Your task to perform on an android device: Go to calendar. Show me events next week Image 0: 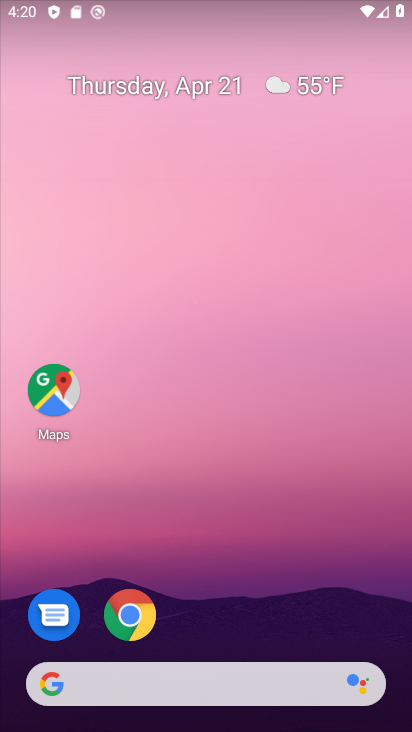
Step 0: drag from (250, 561) to (190, 27)
Your task to perform on an android device: Go to calendar. Show me events next week Image 1: 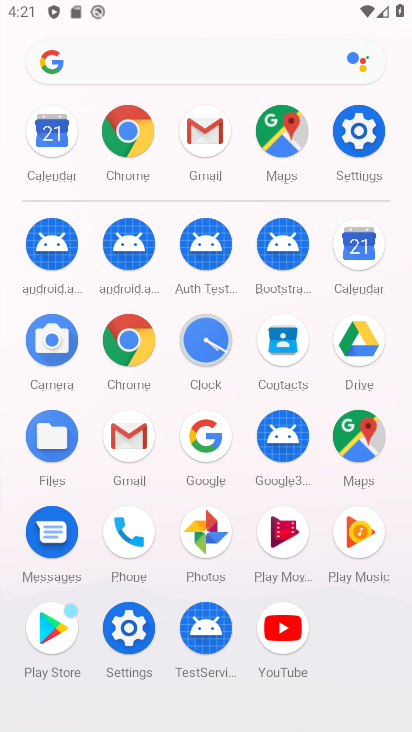
Step 1: drag from (12, 402) to (15, 198)
Your task to perform on an android device: Go to calendar. Show me events next week Image 2: 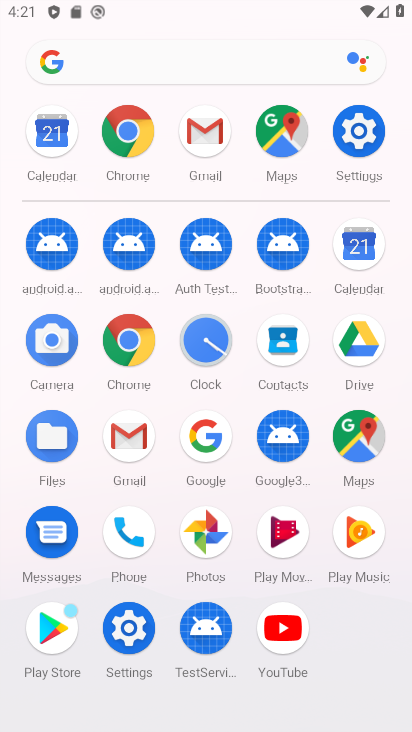
Step 2: click (51, 117)
Your task to perform on an android device: Go to calendar. Show me events next week Image 3: 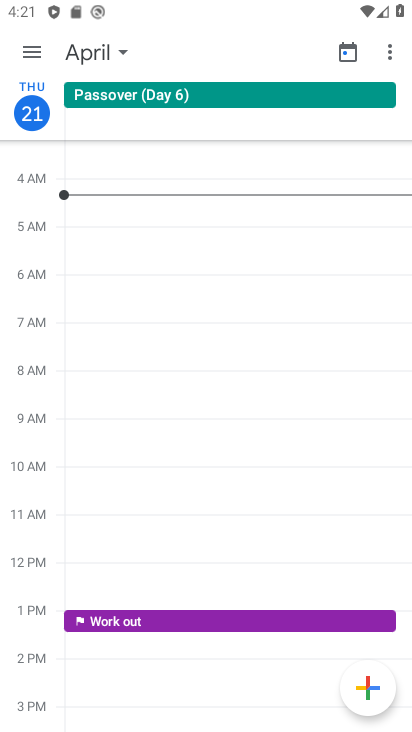
Step 3: click (30, 46)
Your task to perform on an android device: Go to calendar. Show me events next week Image 4: 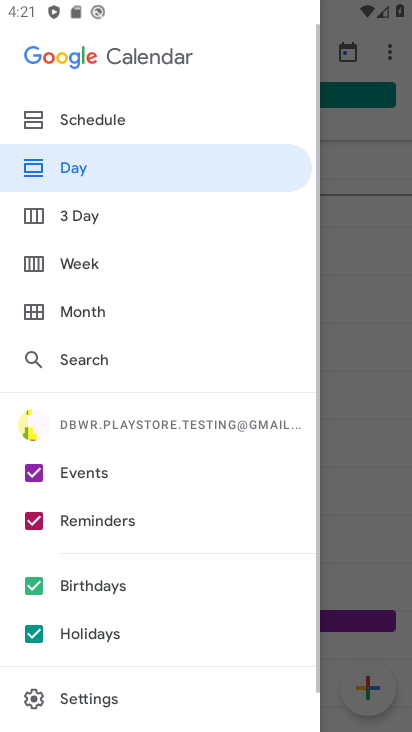
Step 4: click (107, 253)
Your task to perform on an android device: Go to calendar. Show me events next week Image 5: 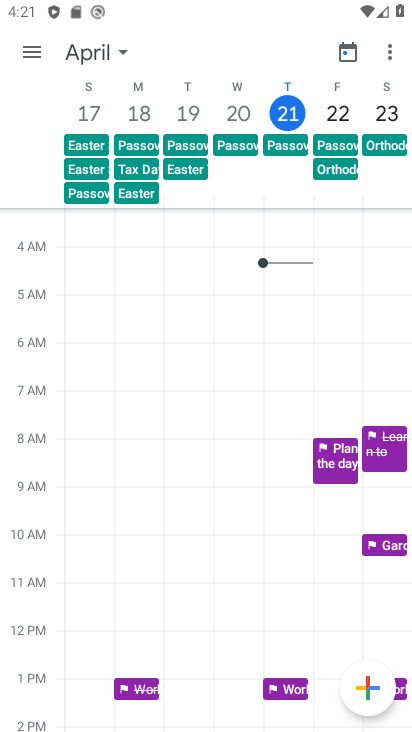
Step 5: task complete